Your task to perform on an android device: Turn on the flashlight Image 0: 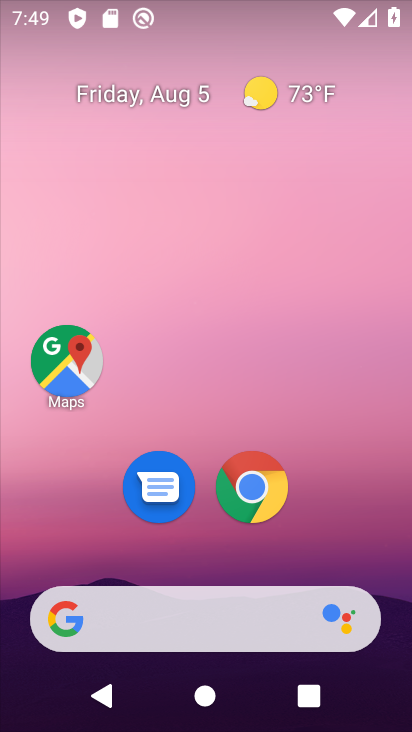
Step 0: drag from (236, 7) to (239, 518)
Your task to perform on an android device: Turn on the flashlight Image 1: 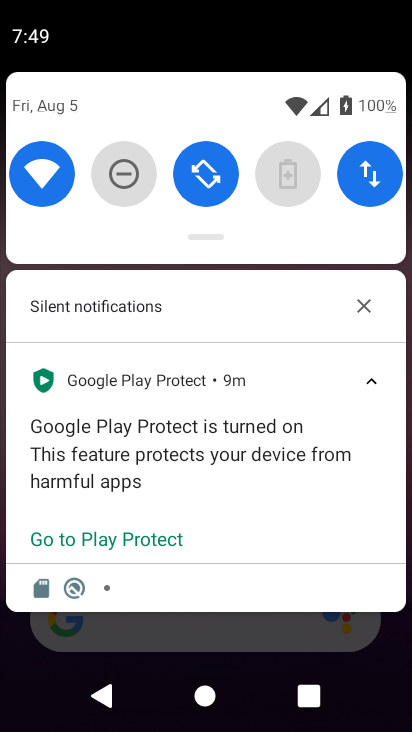
Step 1: task complete